Your task to perform on an android device: turn off notifications settings in the gmail app Image 0: 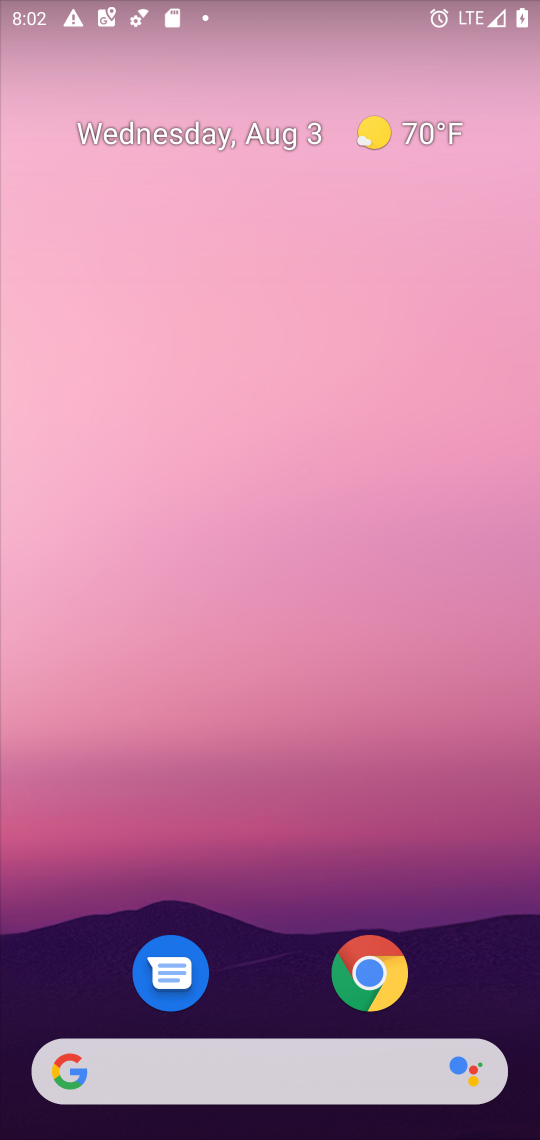
Step 0: press home button
Your task to perform on an android device: turn off notifications settings in the gmail app Image 1: 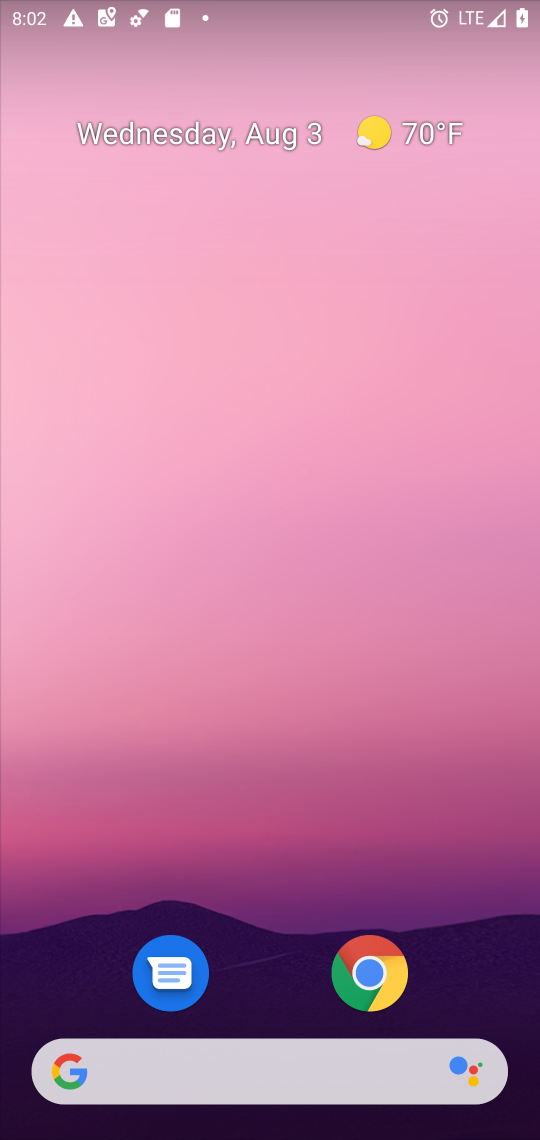
Step 1: drag from (271, 995) to (346, 102)
Your task to perform on an android device: turn off notifications settings in the gmail app Image 2: 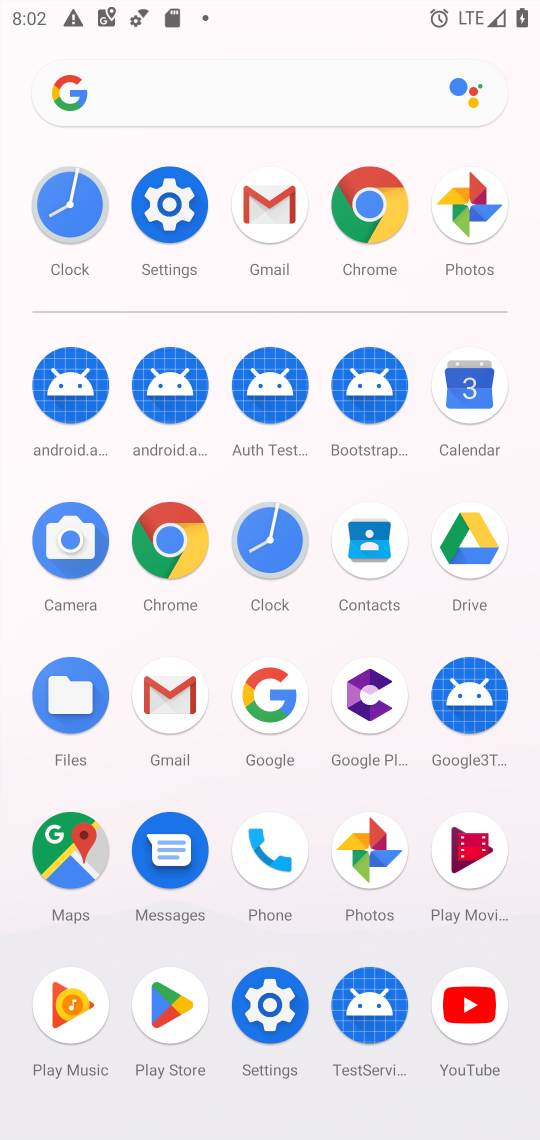
Step 2: click (265, 190)
Your task to perform on an android device: turn off notifications settings in the gmail app Image 3: 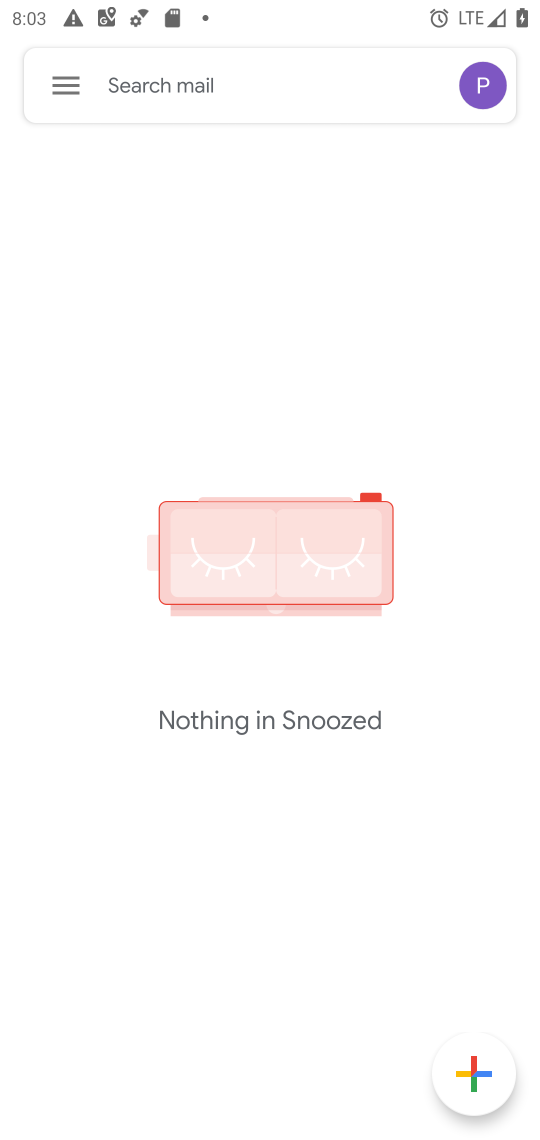
Step 3: click (65, 88)
Your task to perform on an android device: turn off notifications settings in the gmail app Image 4: 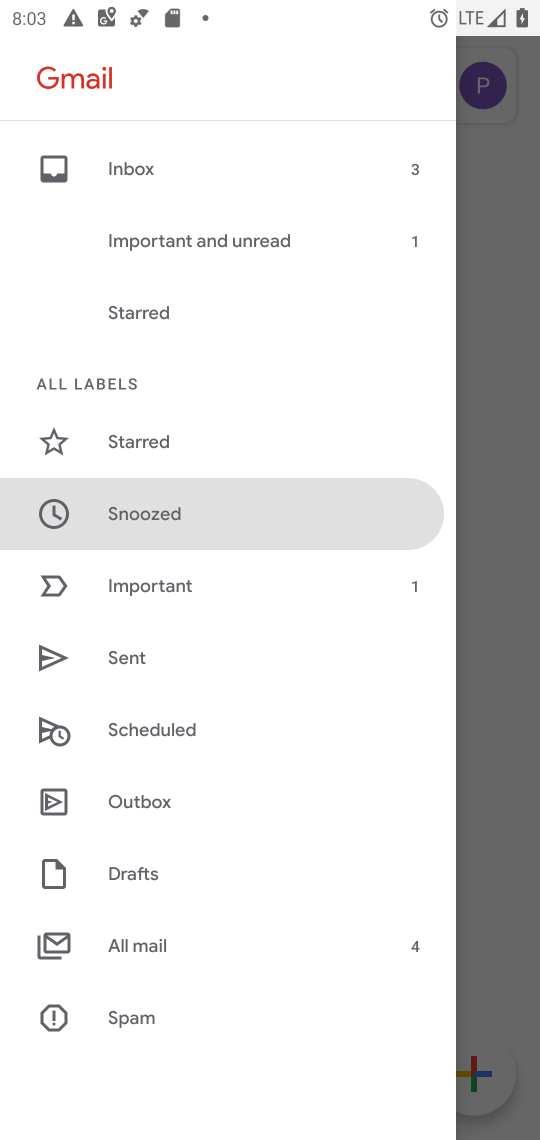
Step 4: drag from (153, 947) to (213, 237)
Your task to perform on an android device: turn off notifications settings in the gmail app Image 5: 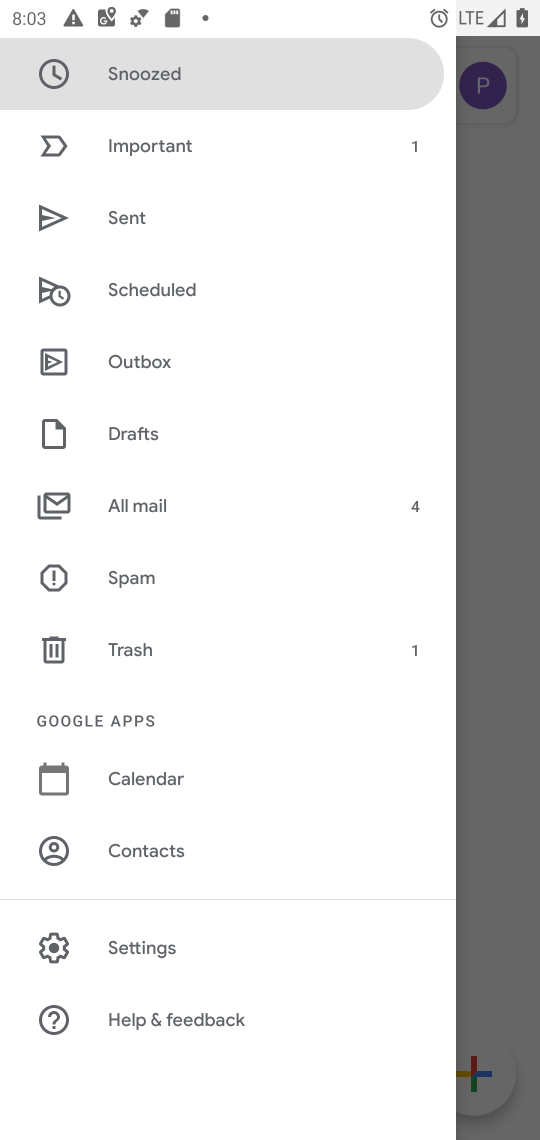
Step 5: click (162, 941)
Your task to perform on an android device: turn off notifications settings in the gmail app Image 6: 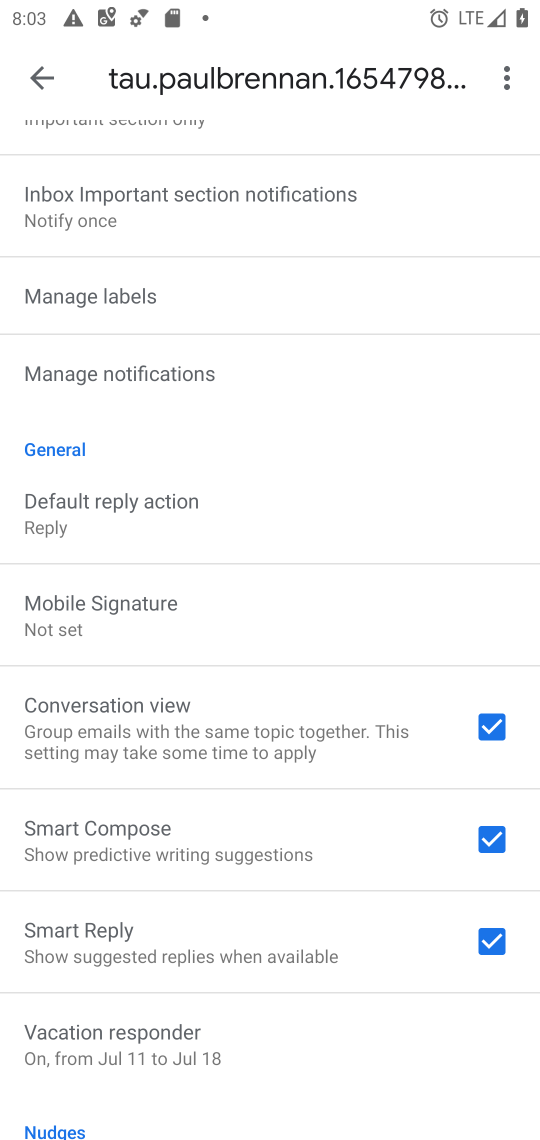
Step 6: click (44, 65)
Your task to perform on an android device: turn off notifications settings in the gmail app Image 7: 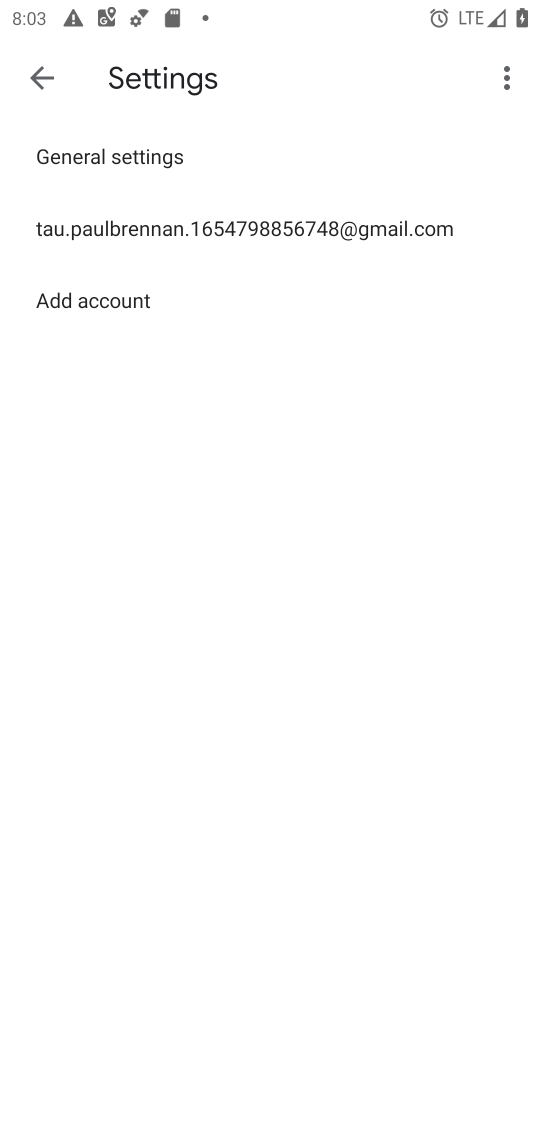
Step 7: click (143, 151)
Your task to perform on an android device: turn off notifications settings in the gmail app Image 8: 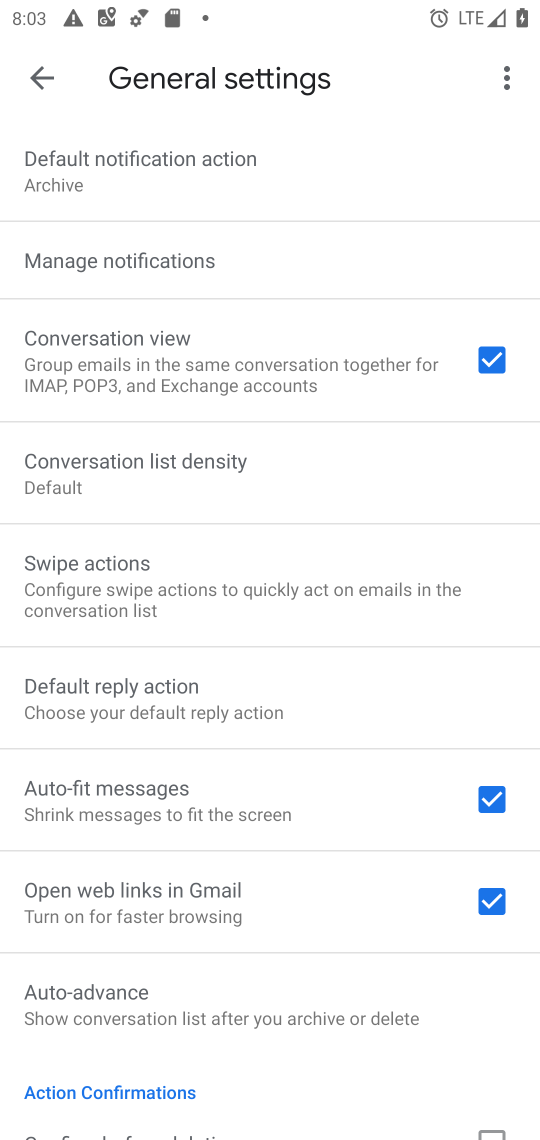
Step 8: click (186, 270)
Your task to perform on an android device: turn off notifications settings in the gmail app Image 9: 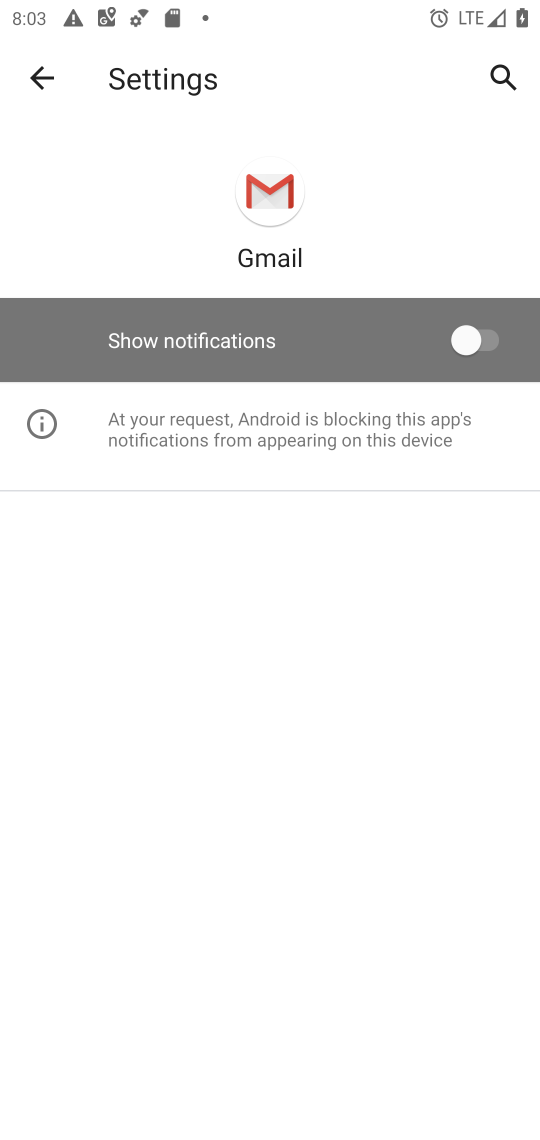
Step 9: task complete